Your task to perform on an android device: change keyboard looks Image 0: 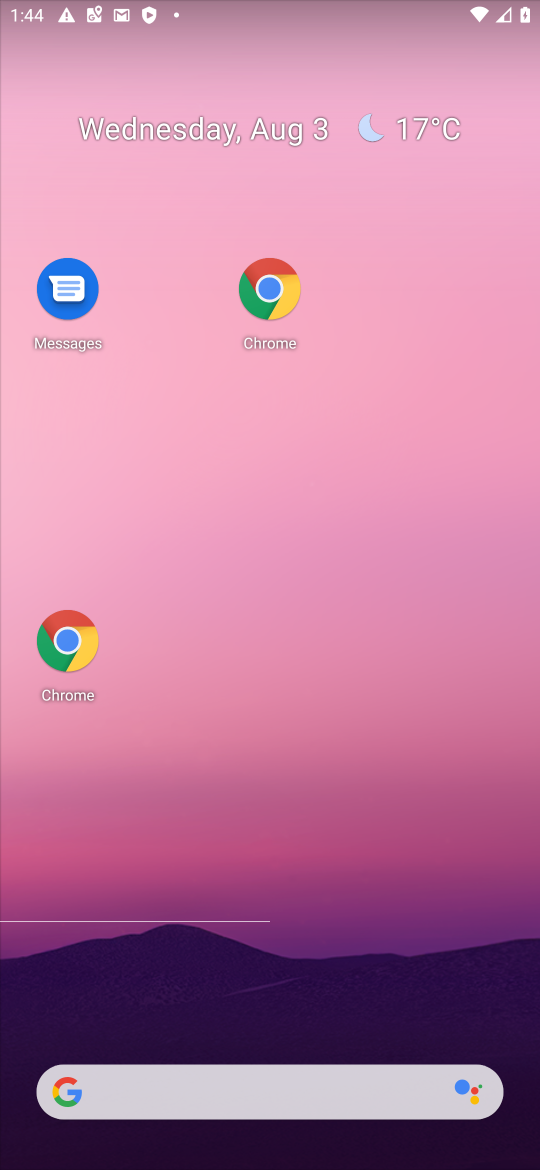
Step 0: drag from (349, 1031) to (361, 245)
Your task to perform on an android device: change keyboard looks Image 1: 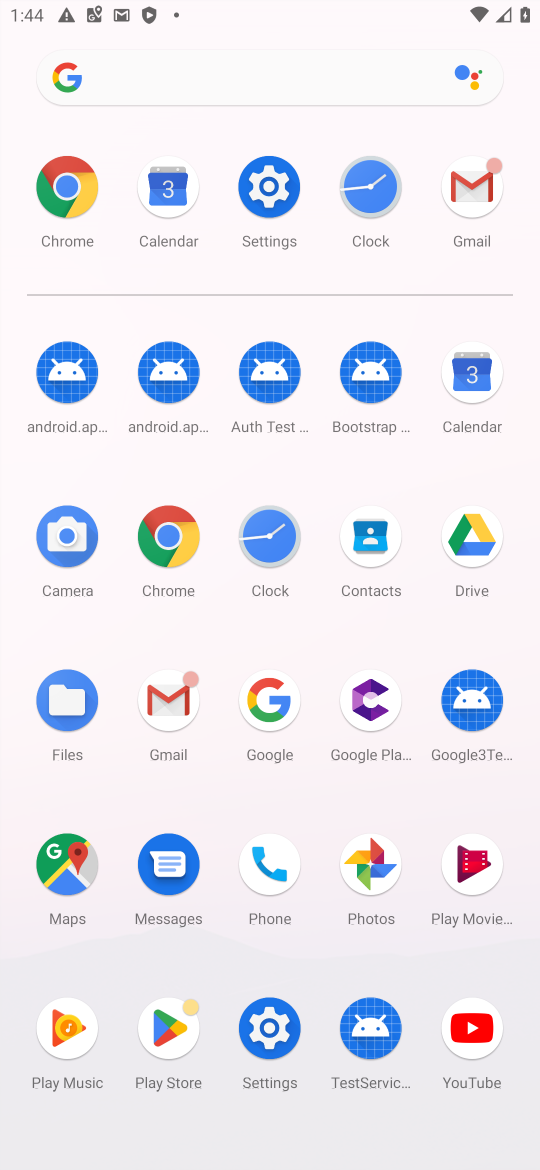
Step 1: click (275, 1027)
Your task to perform on an android device: change keyboard looks Image 2: 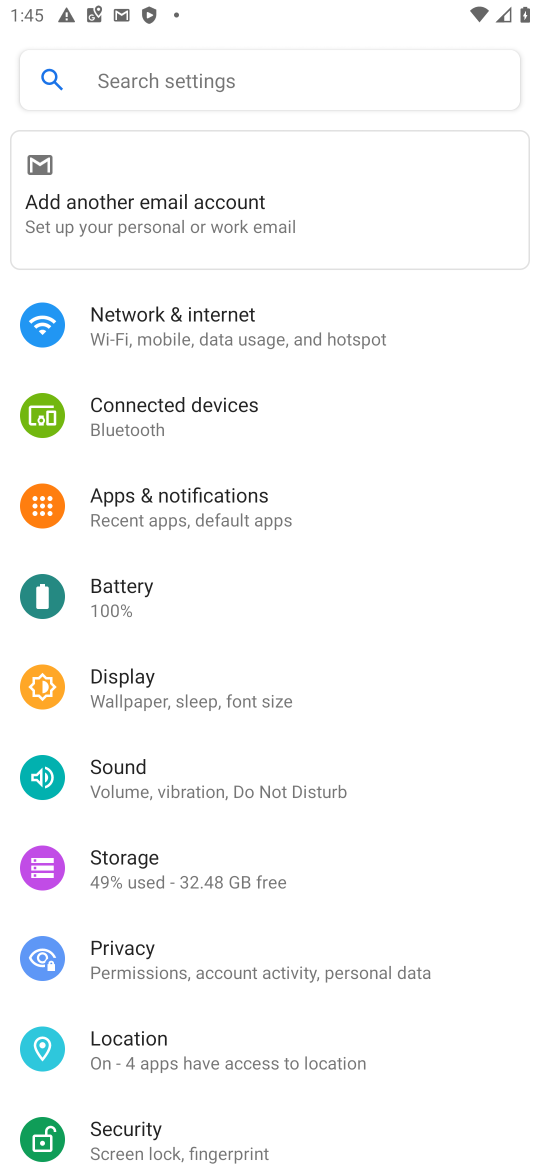
Step 2: drag from (321, 1103) to (361, 285)
Your task to perform on an android device: change keyboard looks Image 3: 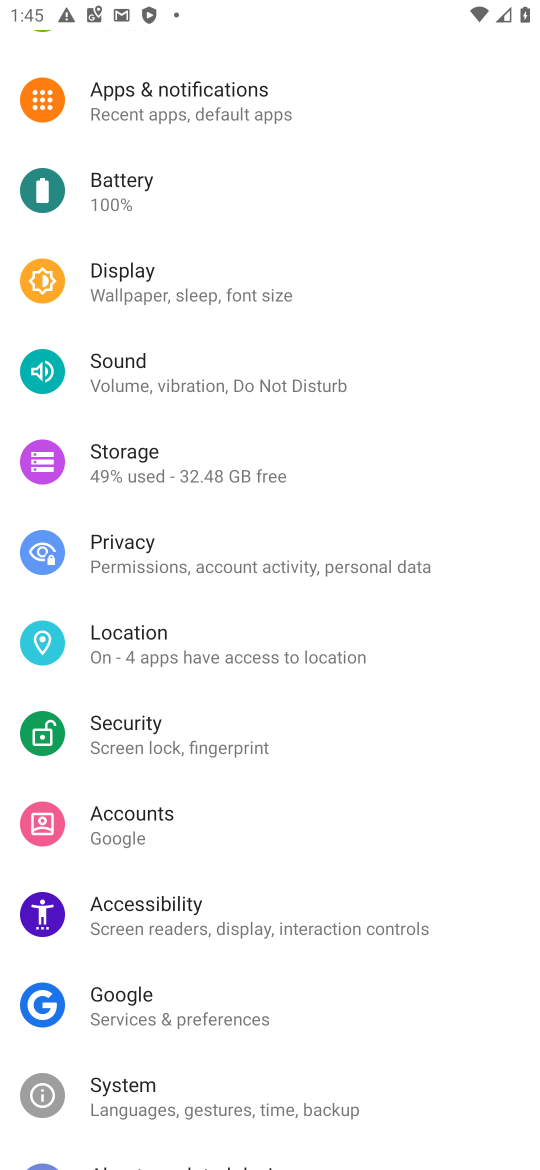
Step 3: drag from (250, 1153) to (292, 565)
Your task to perform on an android device: change keyboard looks Image 4: 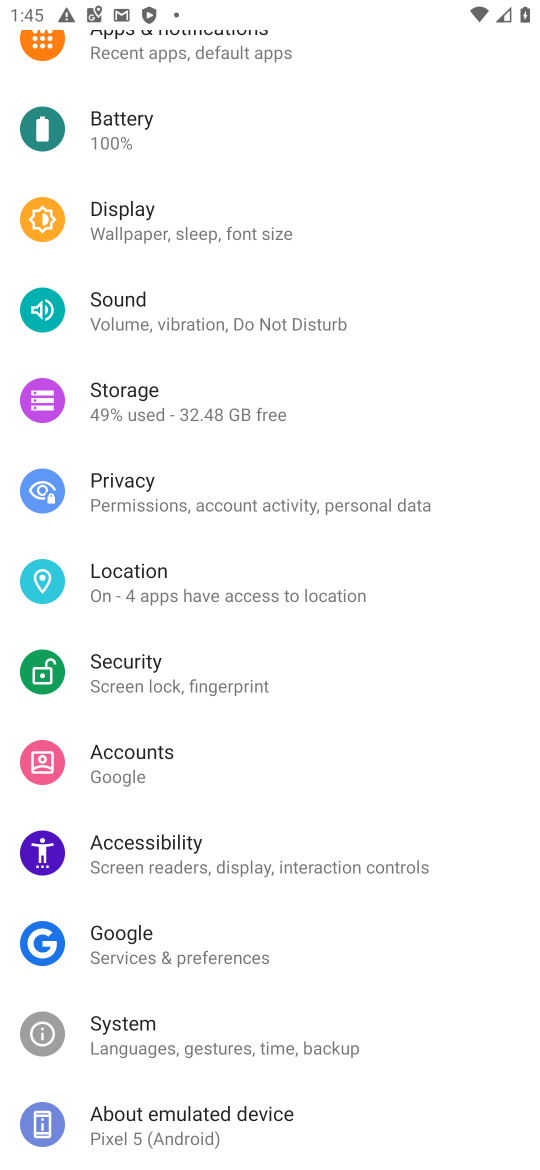
Step 4: click (307, 1052)
Your task to perform on an android device: change keyboard looks Image 5: 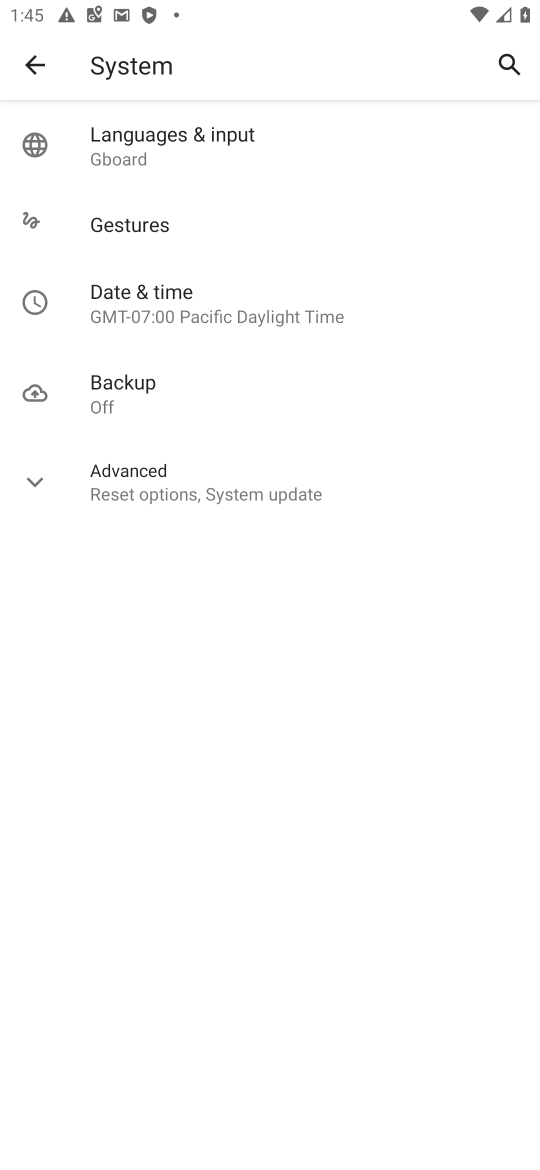
Step 5: click (153, 143)
Your task to perform on an android device: change keyboard looks Image 6: 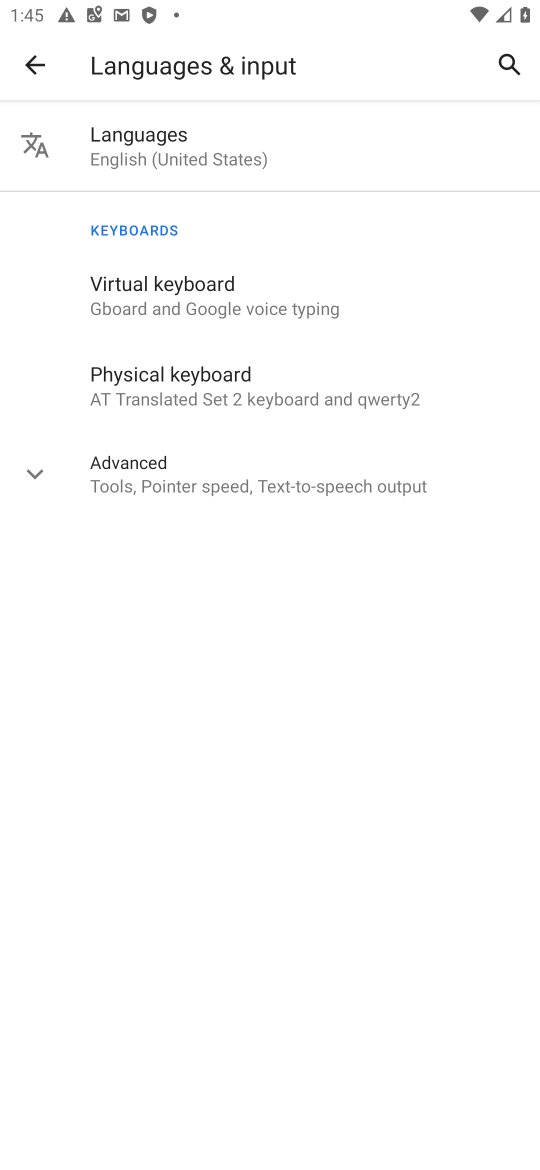
Step 6: click (207, 313)
Your task to perform on an android device: change keyboard looks Image 7: 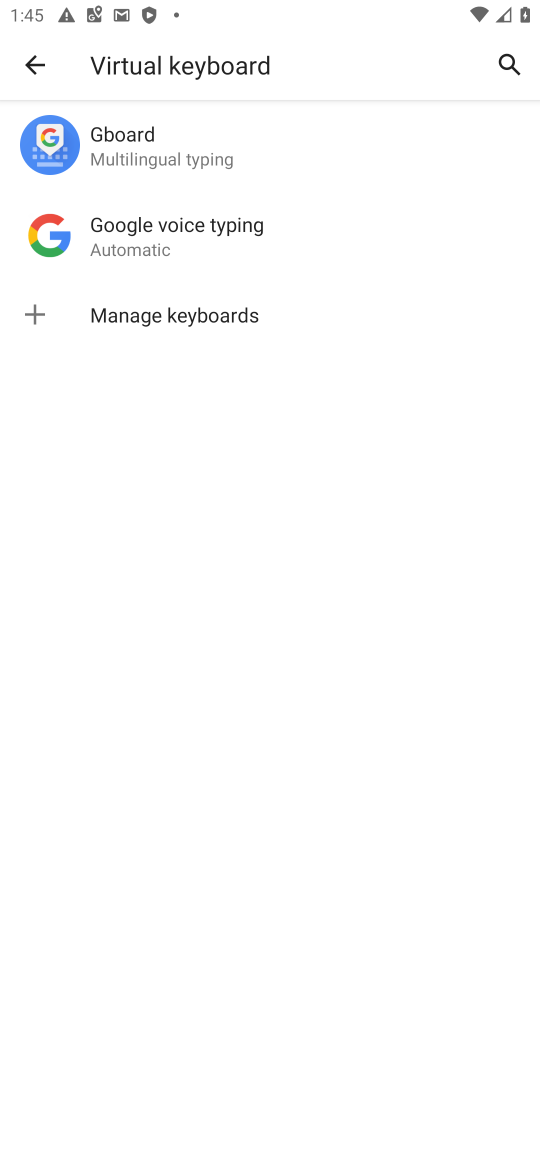
Step 7: click (201, 138)
Your task to perform on an android device: change keyboard looks Image 8: 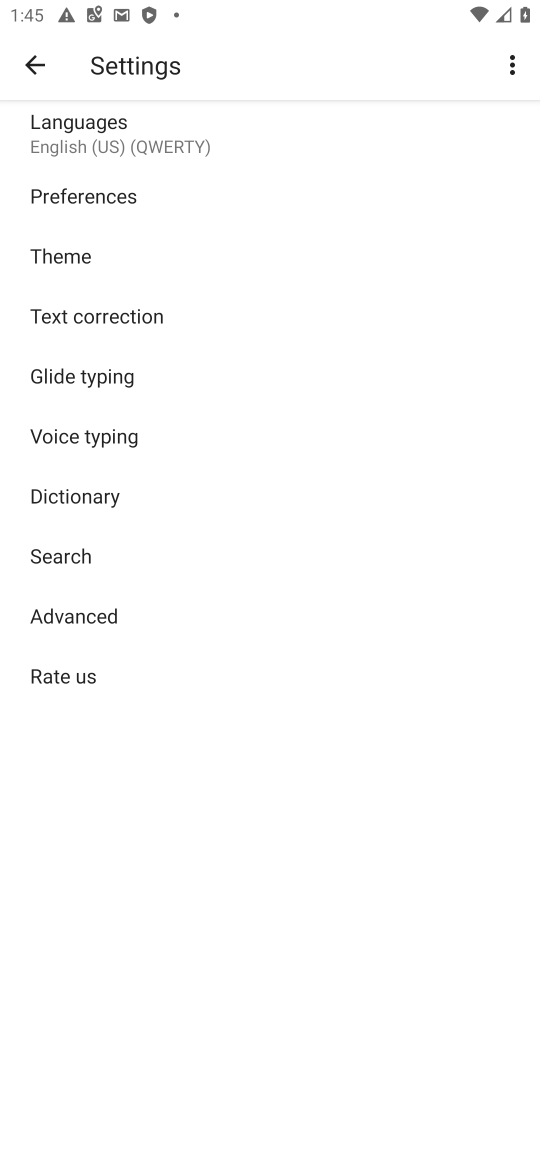
Step 8: click (144, 150)
Your task to perform on an android device: change keyboard looks Image 9: 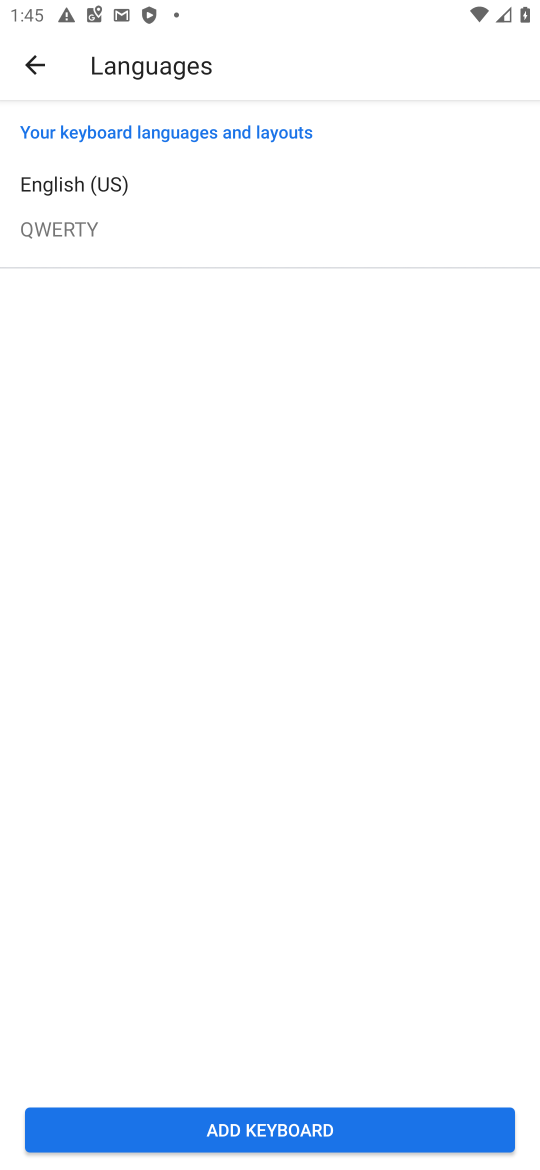
Step 9: task complete